Your task to perform on an android device: turn off translation in the chrome app Image 0: 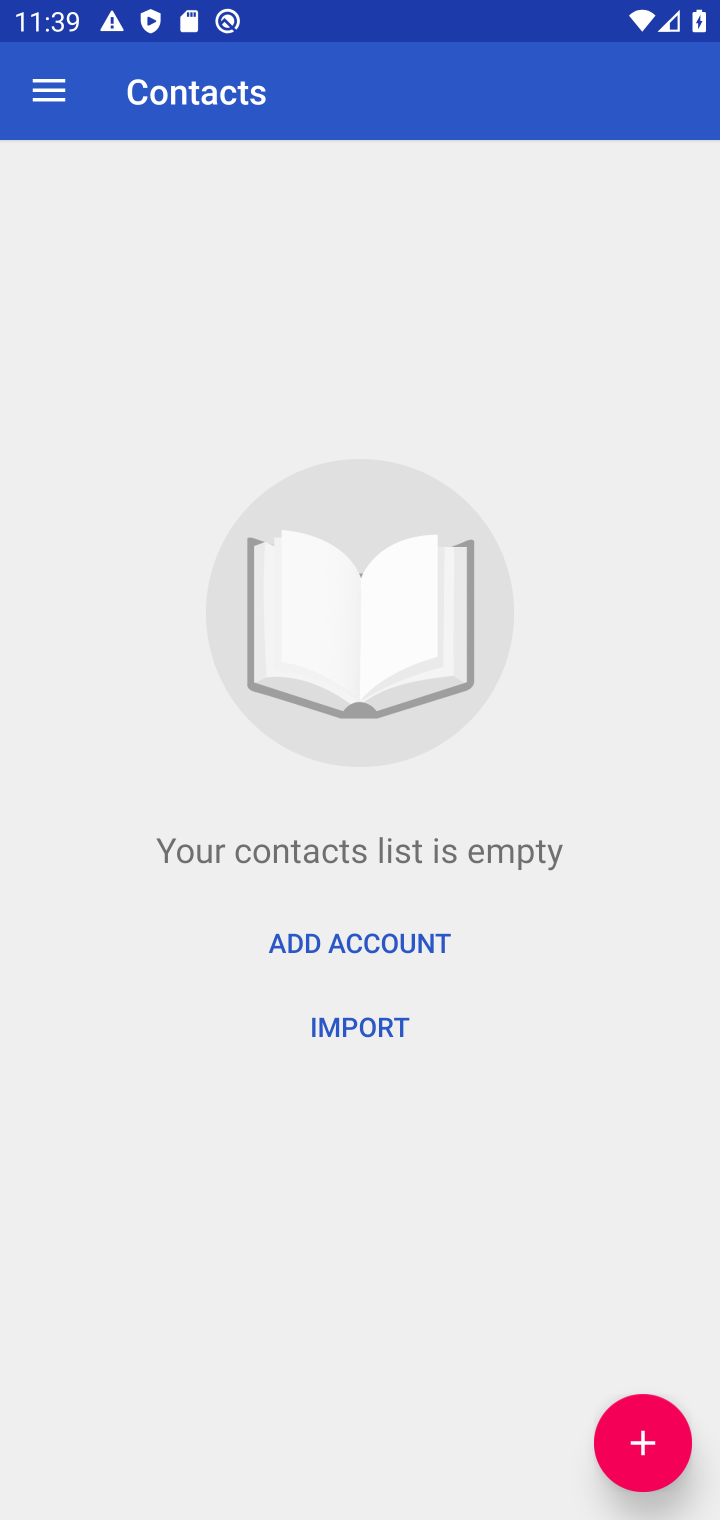
Step 0: drag from (468, 836) to (533, 345)
Your task to perform on an android device: turn off translation in the chrome app Image 1: 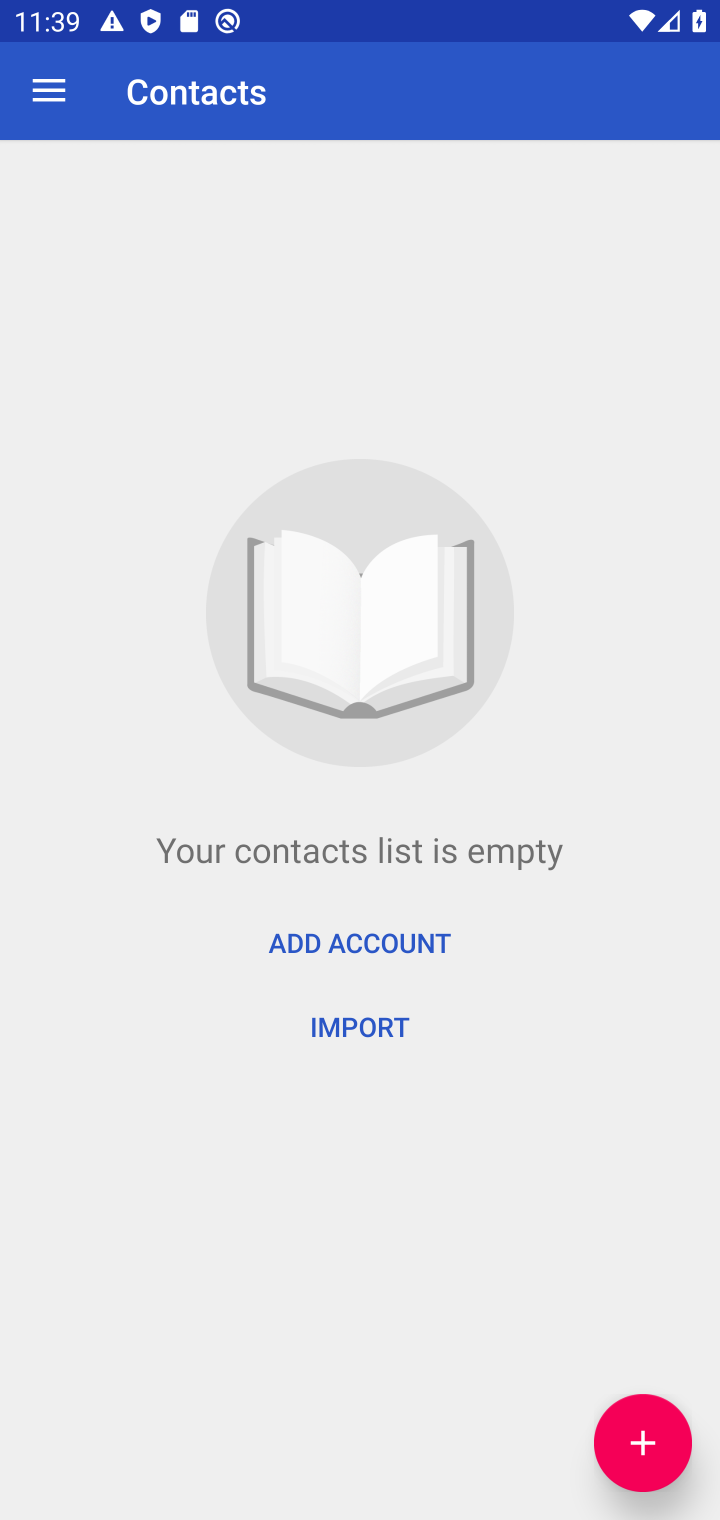
Step 1: drag from (500, 1320) to (520, 782)
Your task to perform on an android device: turn off translation in the chrome app Image 2: 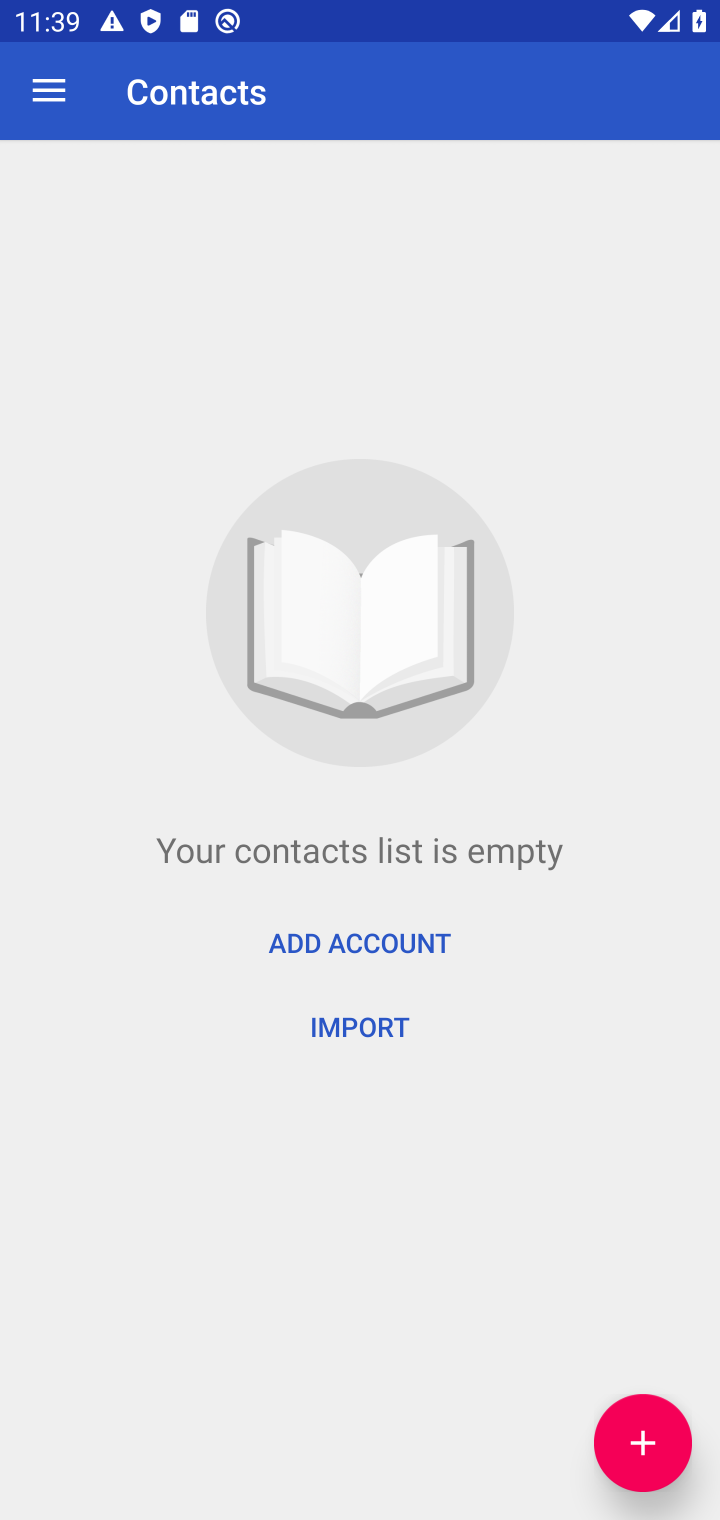
Step 2: drag from (429, 1206) to (426, 1012)
Your task to perform on an android device: turn off translation in the chrome app Image 3: 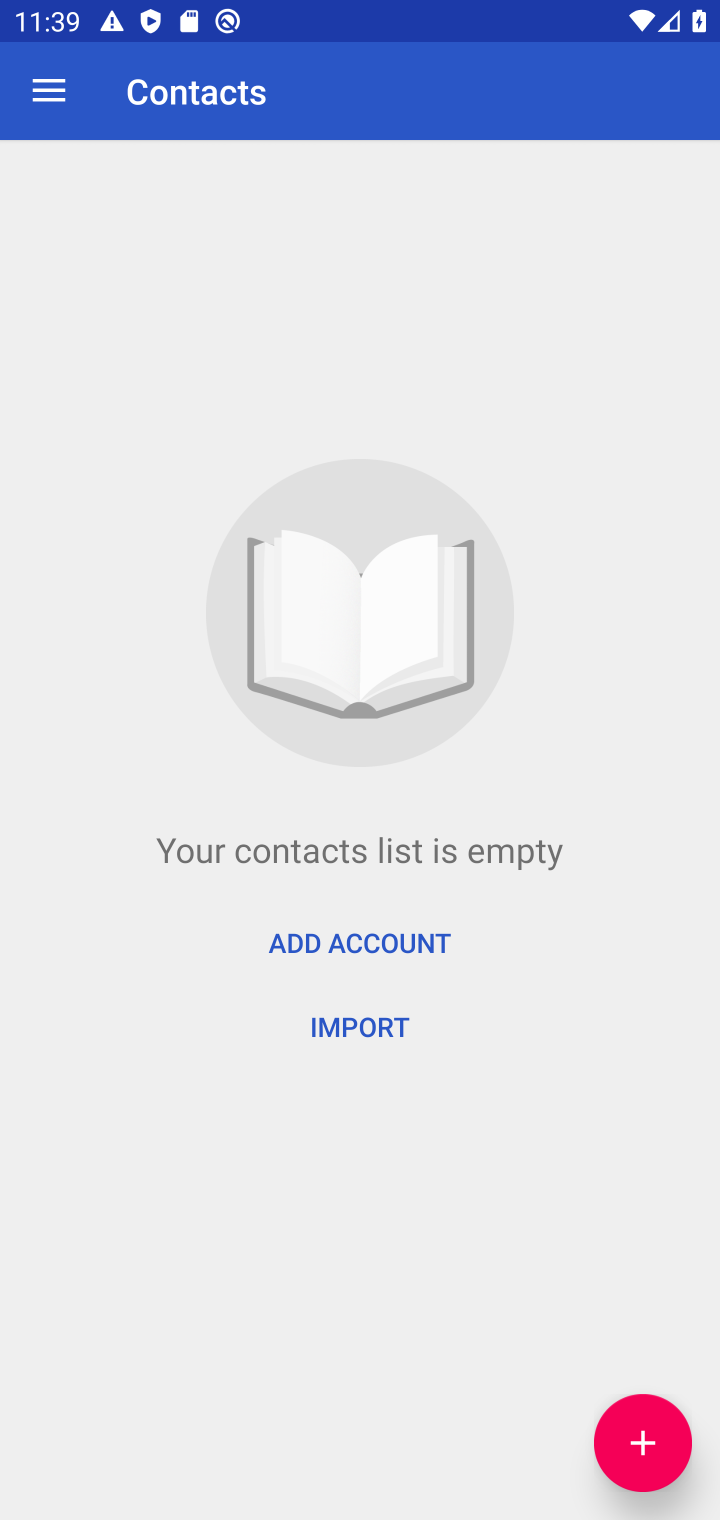
Step 3: drag from (512, 1074) to (529, 221)
Your task to perform on an android device: turn off translation in the chrome app Image 4: 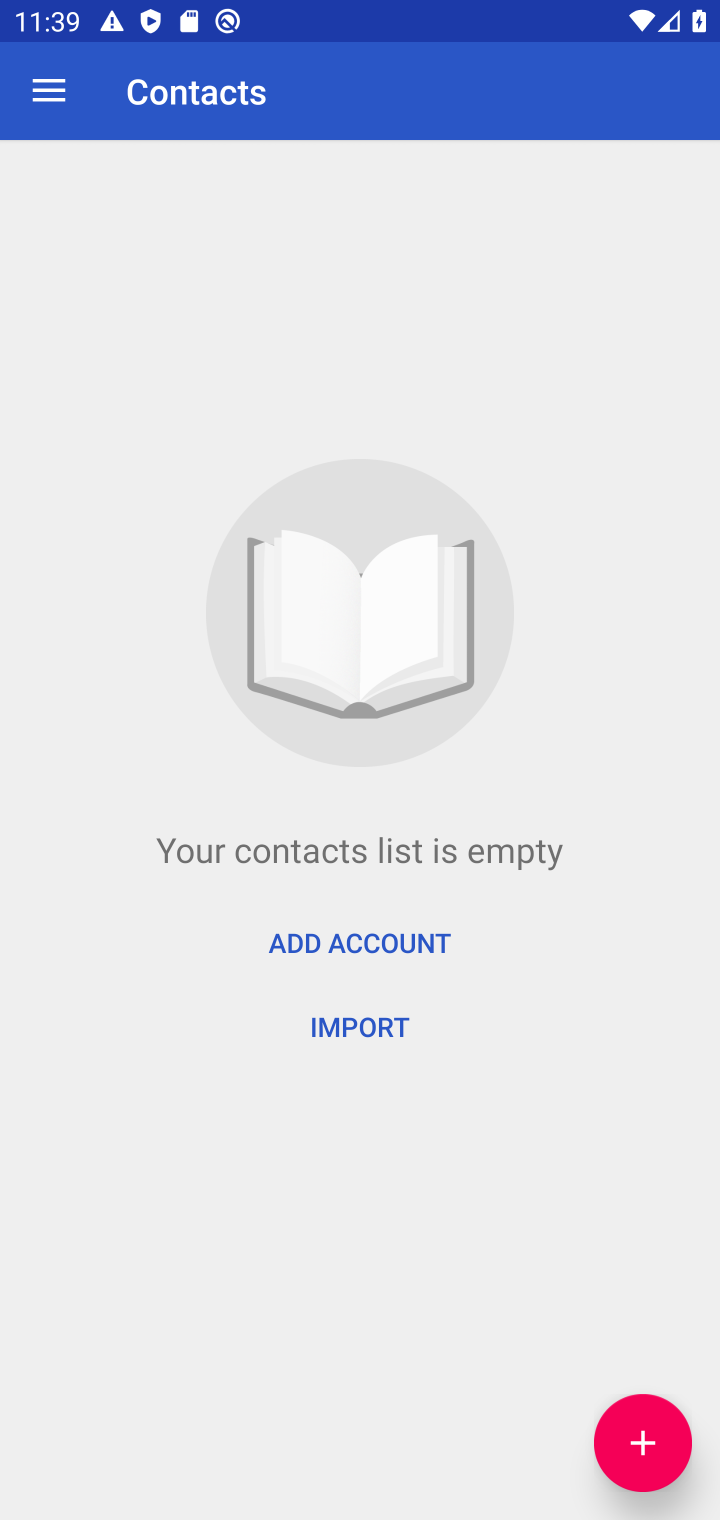
Step 4: drag from (455, 989) to (442, 270)
Your task to perform on an android device: turn off translation in the chrome app Image 5: 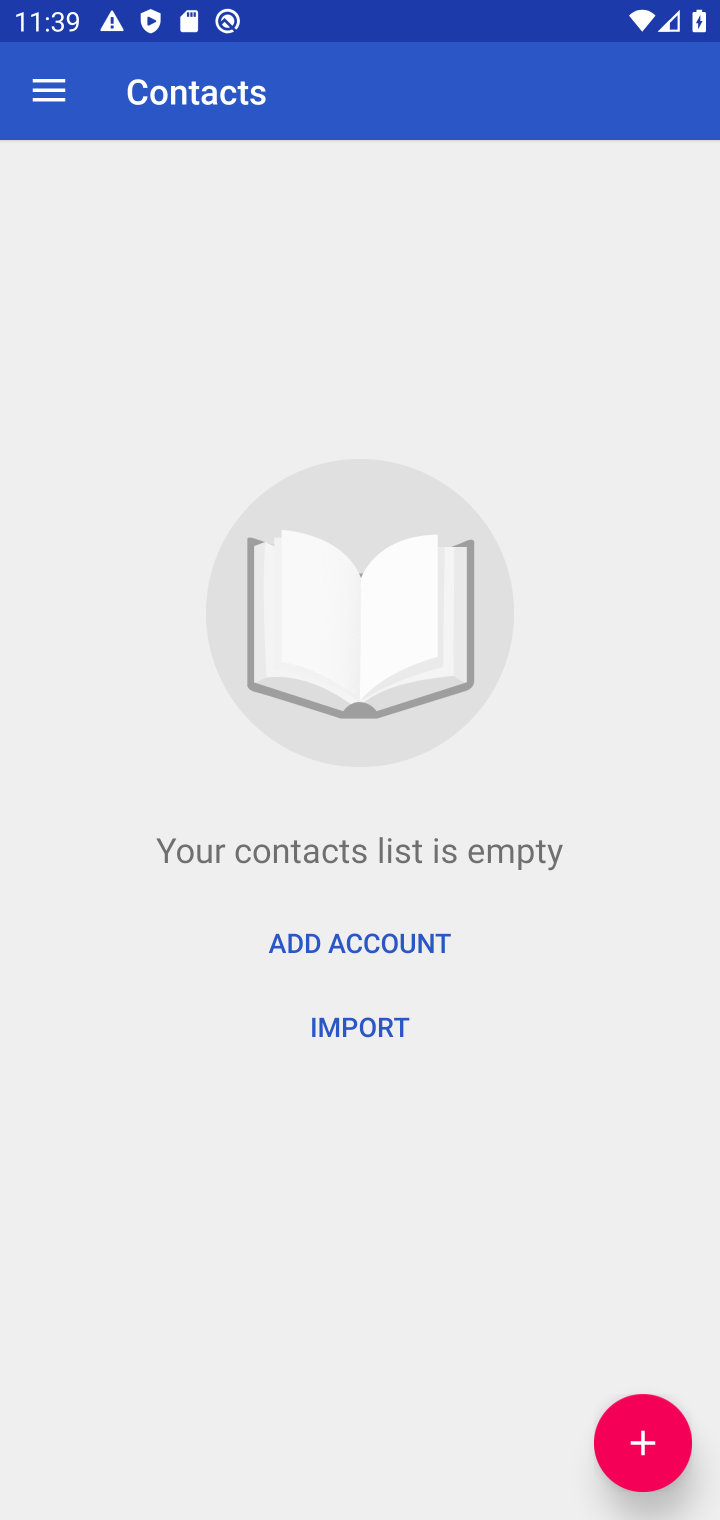
Step 5: press home button
Your task to perform on an android device: turn off translation in the chrome app Image 6: 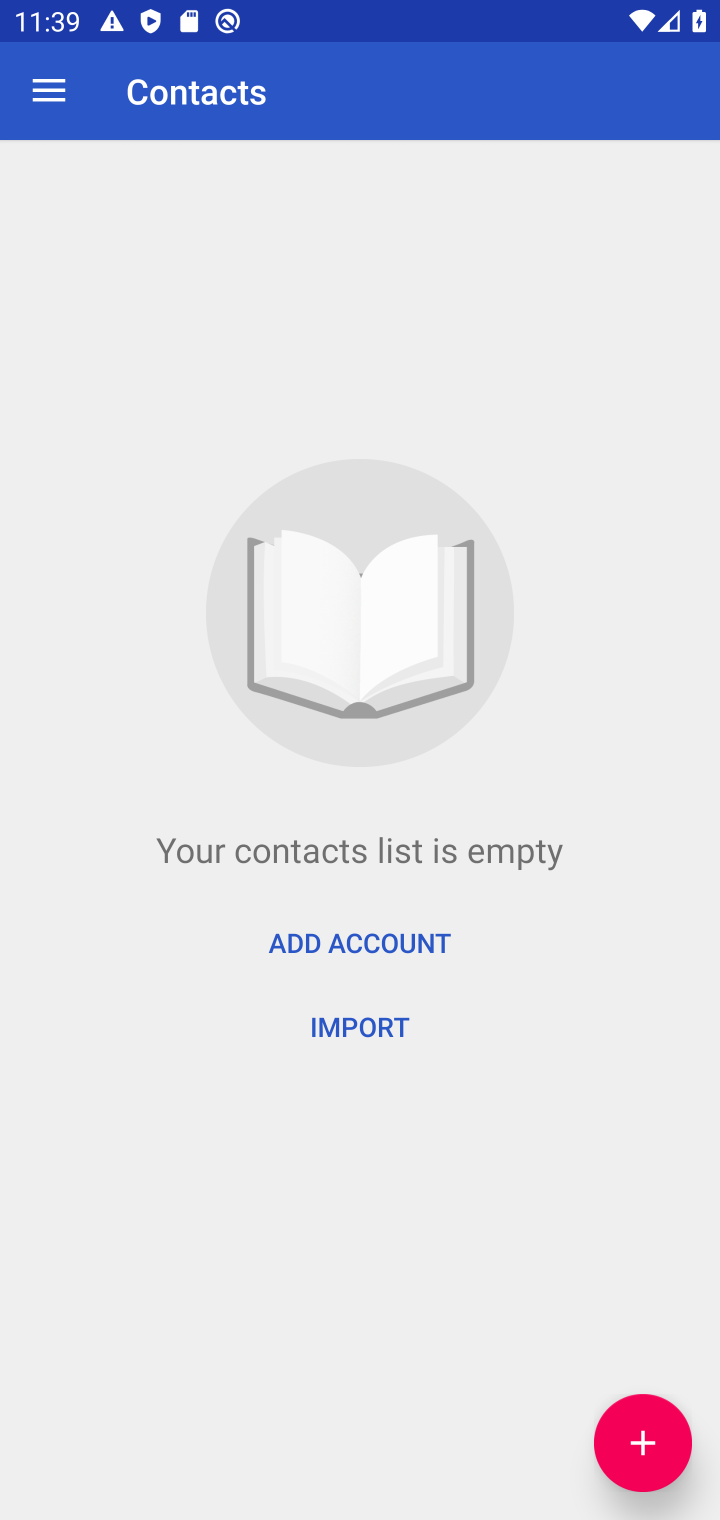
Step 6: press home button
Your task to perform on an android device: turn off translation in the chrome app Image 7: 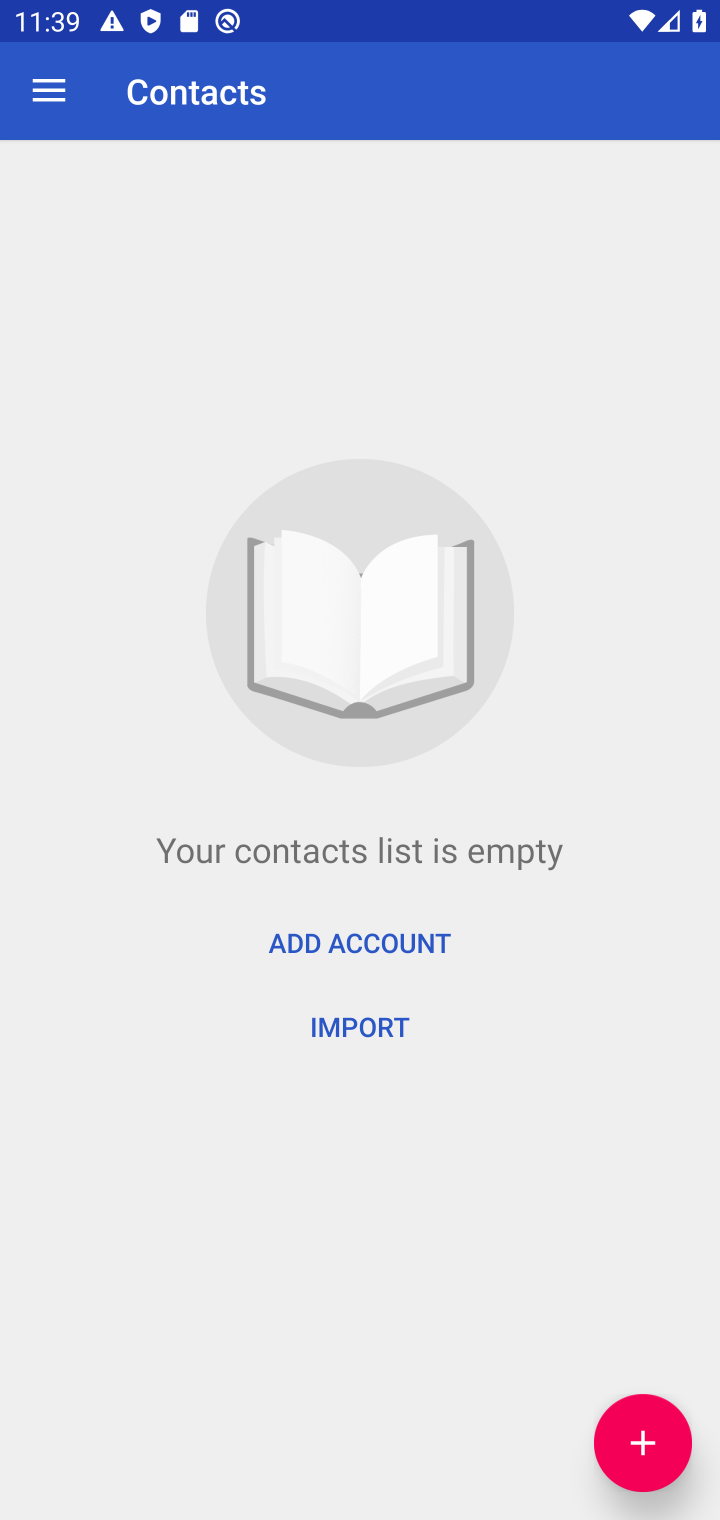
Step 7: click (485, 342)
Your task to perform on an android device: turn off translation in the chrome app Image 8: 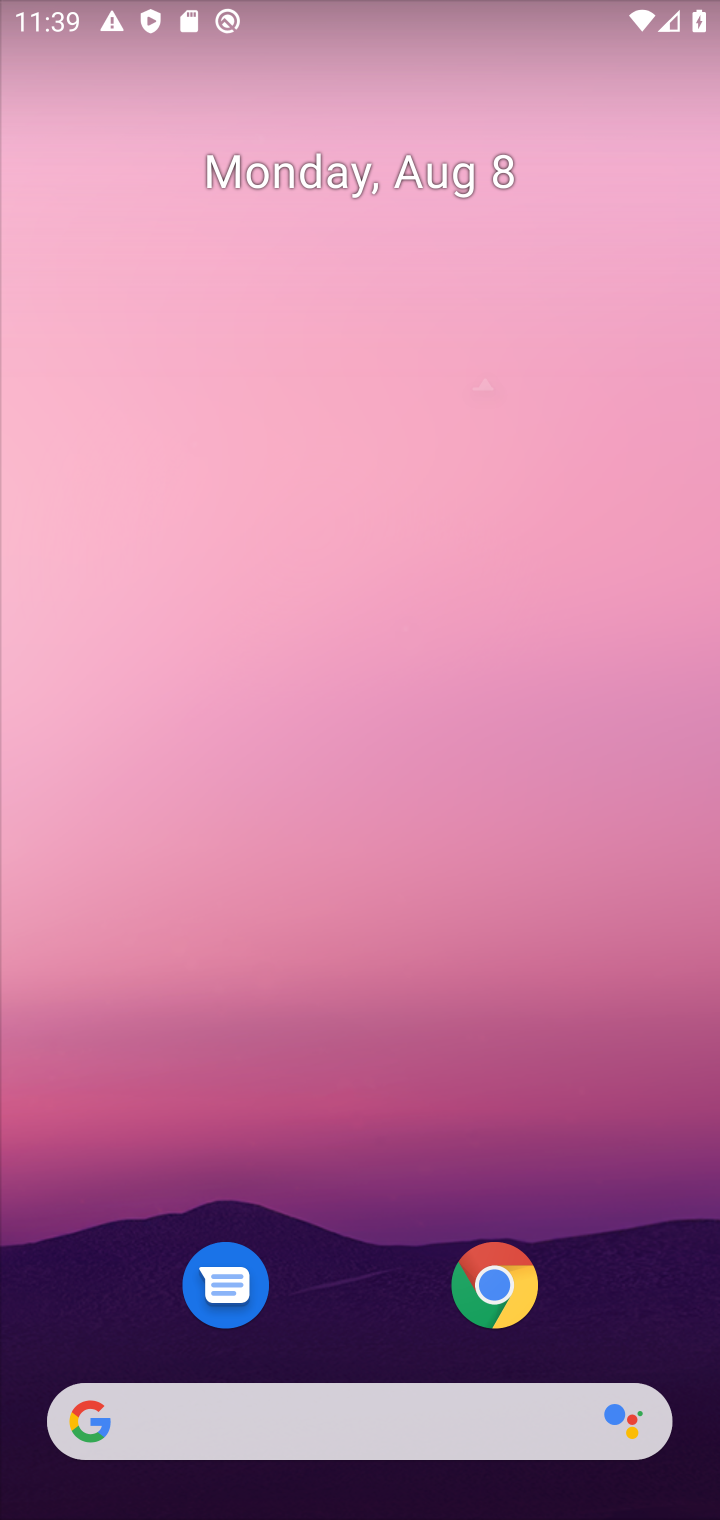
Step 8: drag from (380, 879) to (380, 555)
Your task to perform on an android device: turn off translation in the chrome app Image 9: 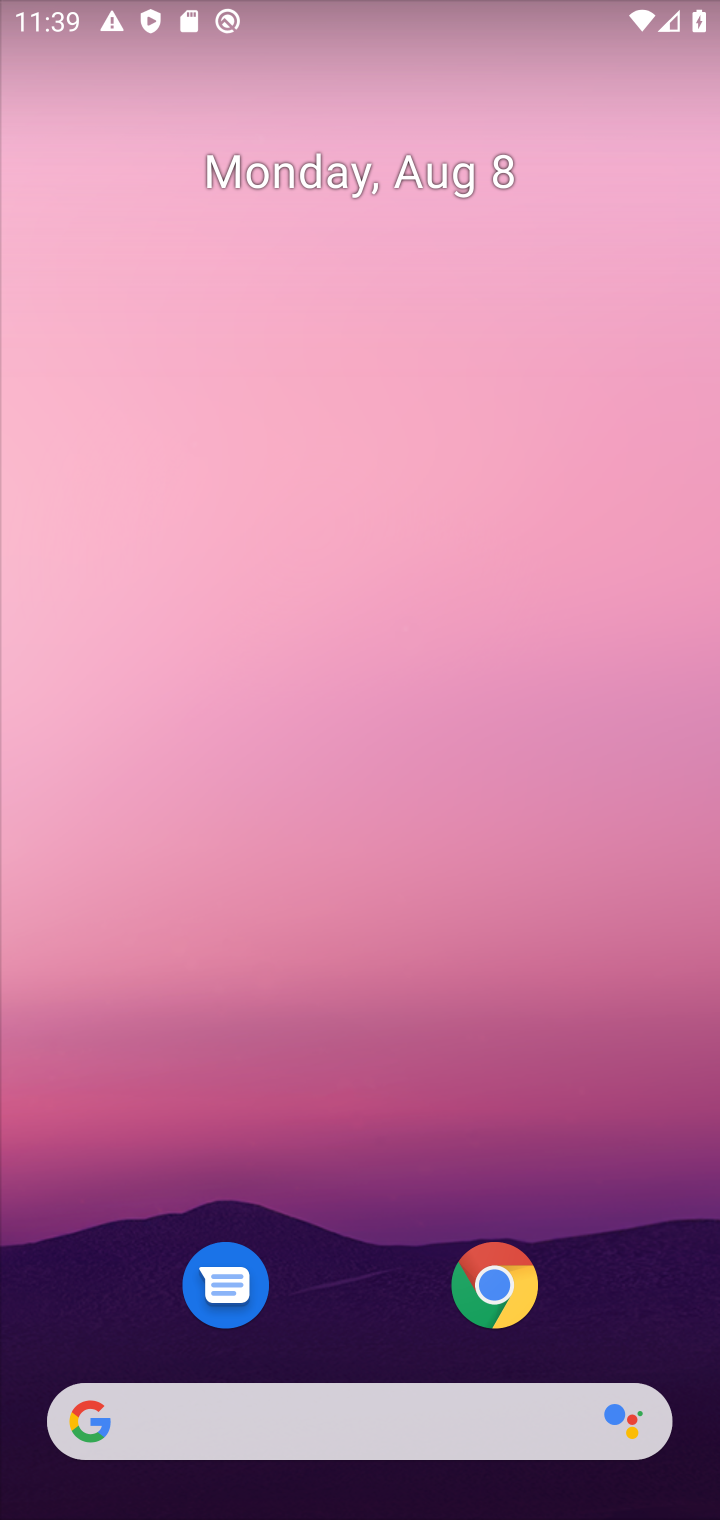
Step 9: drag from (386, 1244) to (487, 172)
Your task to perform on an android device: turn off translation in the chrome app Image 10: 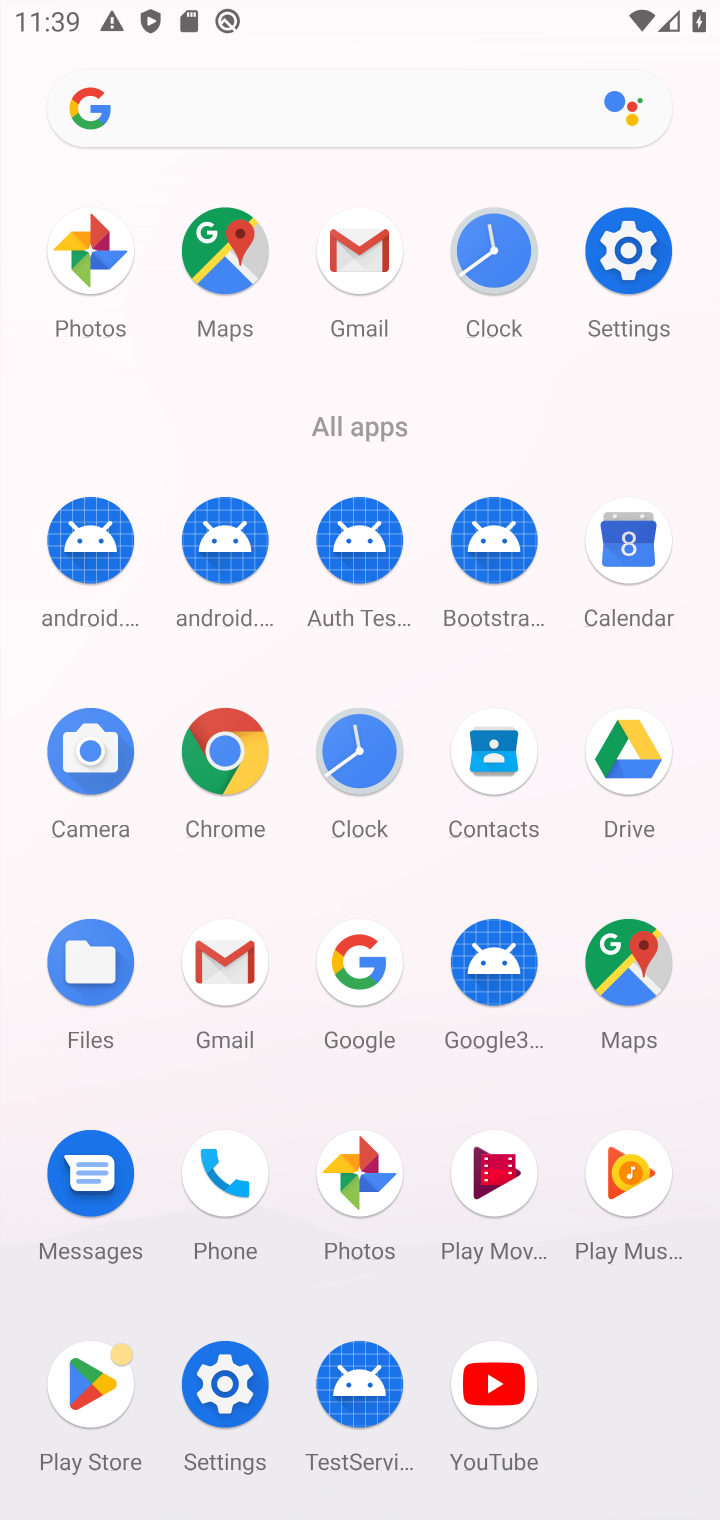
Step 10: click (226, 734)
Your task to perform on an android device: turn off translation in the chrome app Image 11: 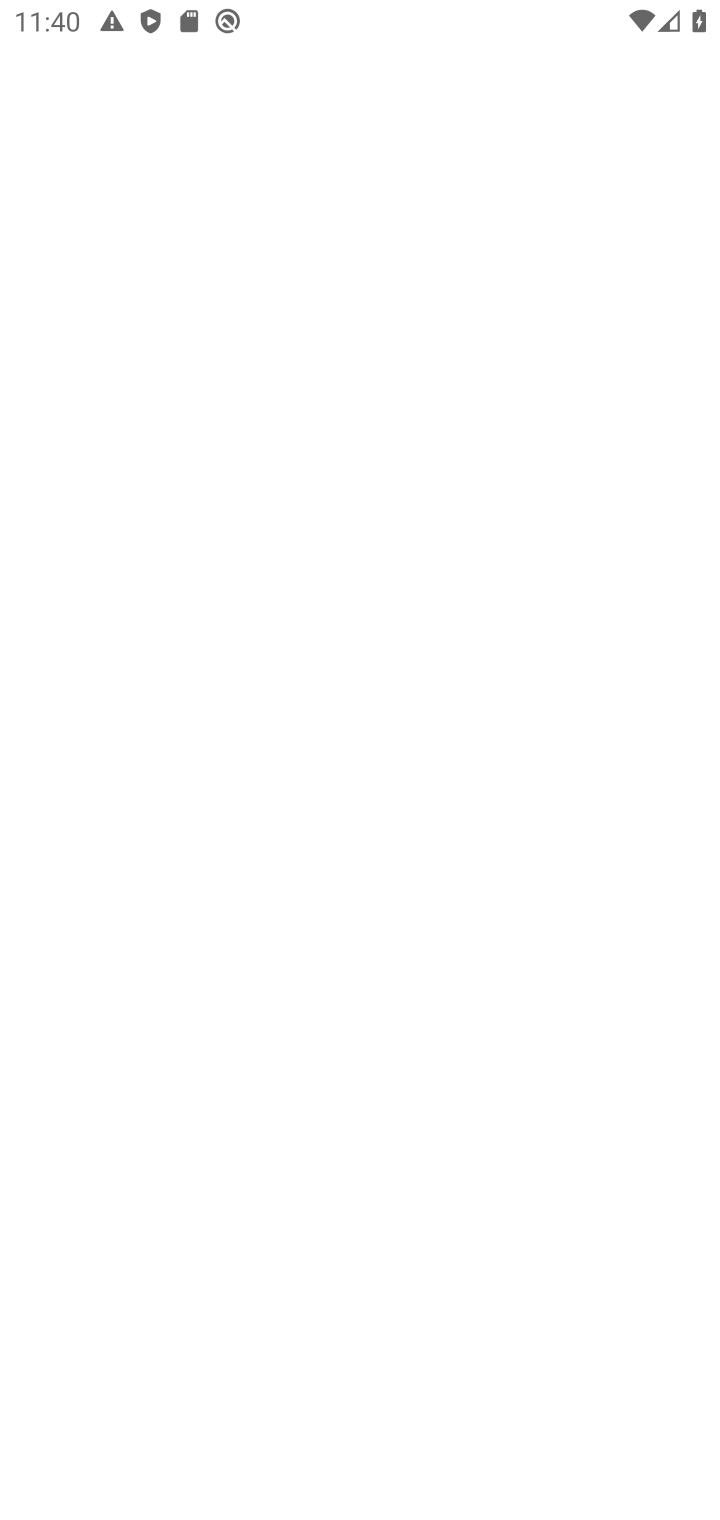
Step 11: click (232, 763)
Your task to perform on an android device: turn off translation in the chrome app Image 12: 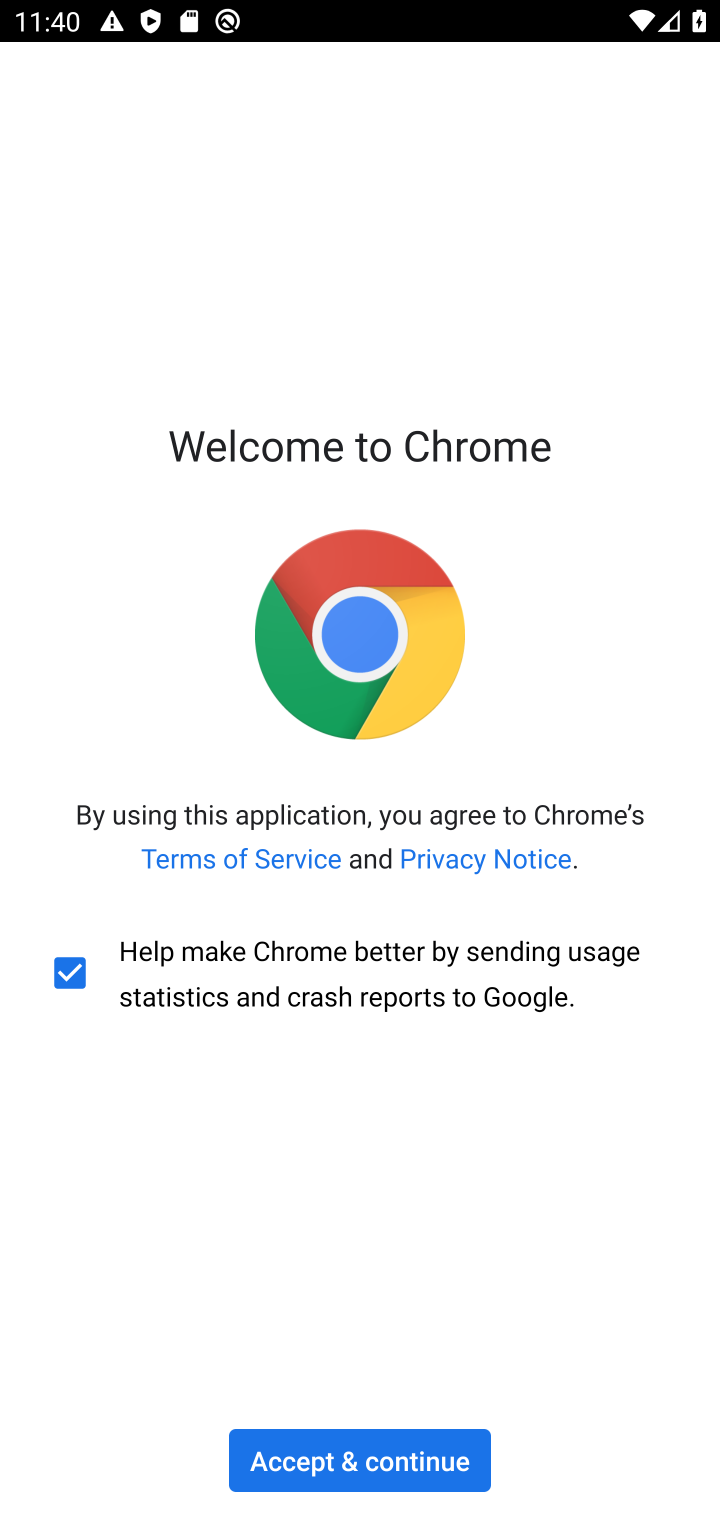
Step 12: click (340, 1447)
Your task to perform on an android device: turn off translation in the chrome app Image 13: 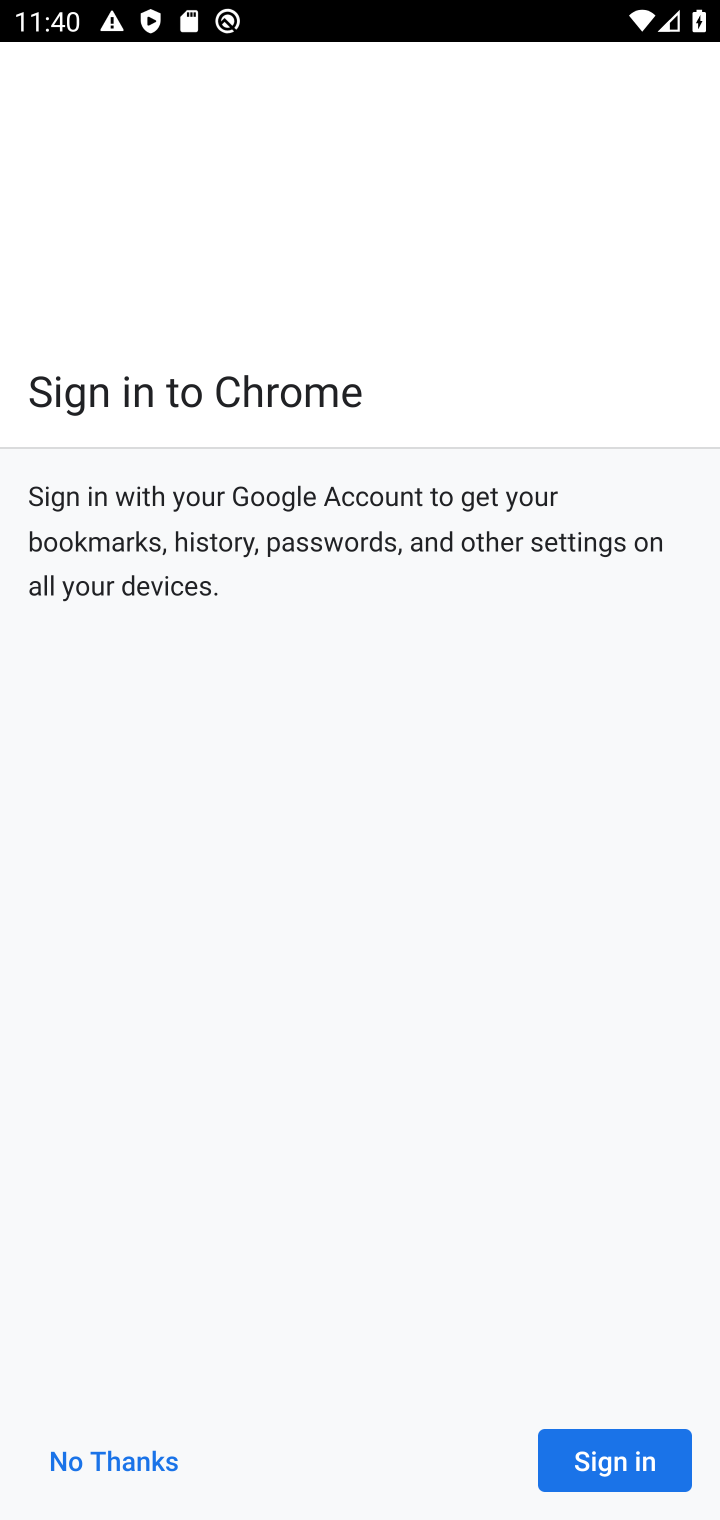
Step 13: click (335, 1449)
Your task to perform on an android device: turn off translation in the chrome app Image 14: 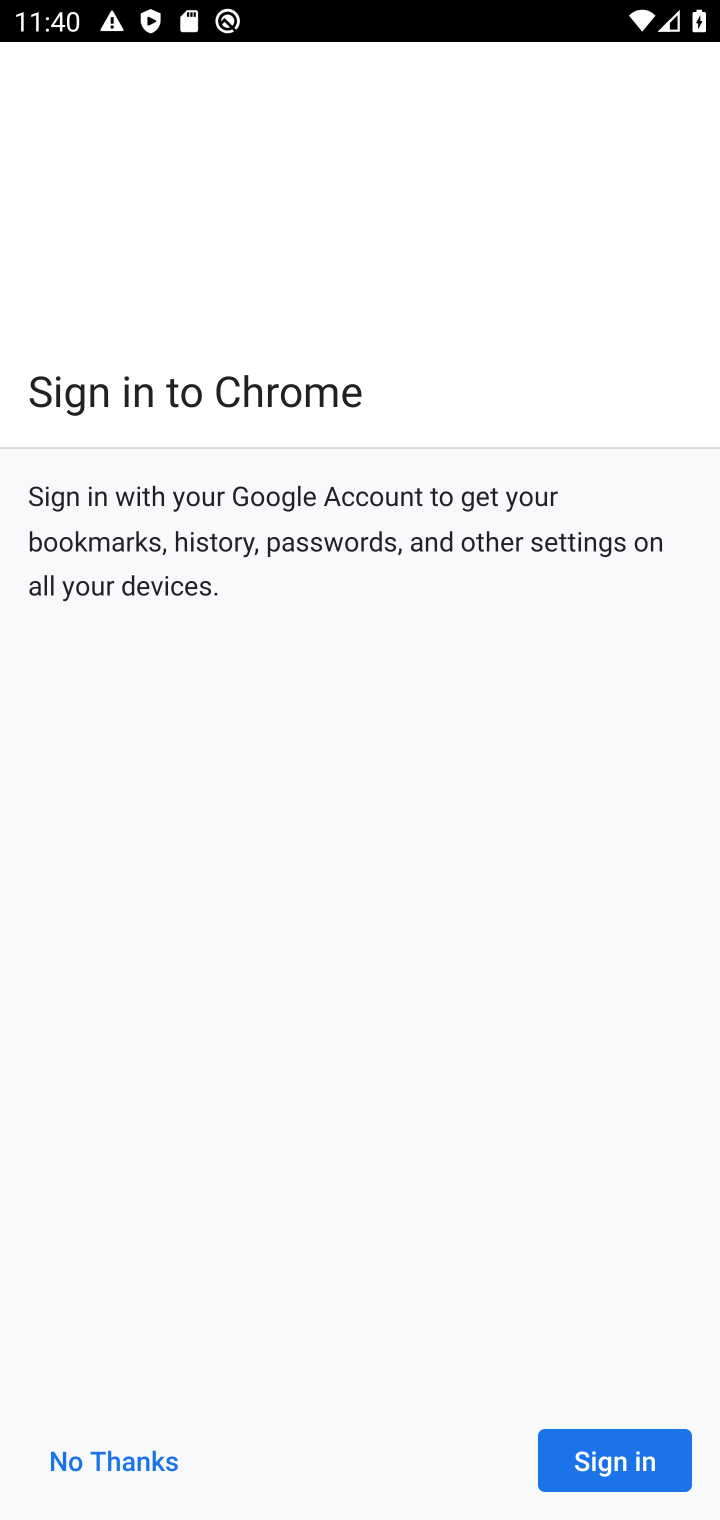
Step 14: drag from (322, 805) to (297, 92)
Your task to perform on an android device: turn off translation in the chrome app Image 15: 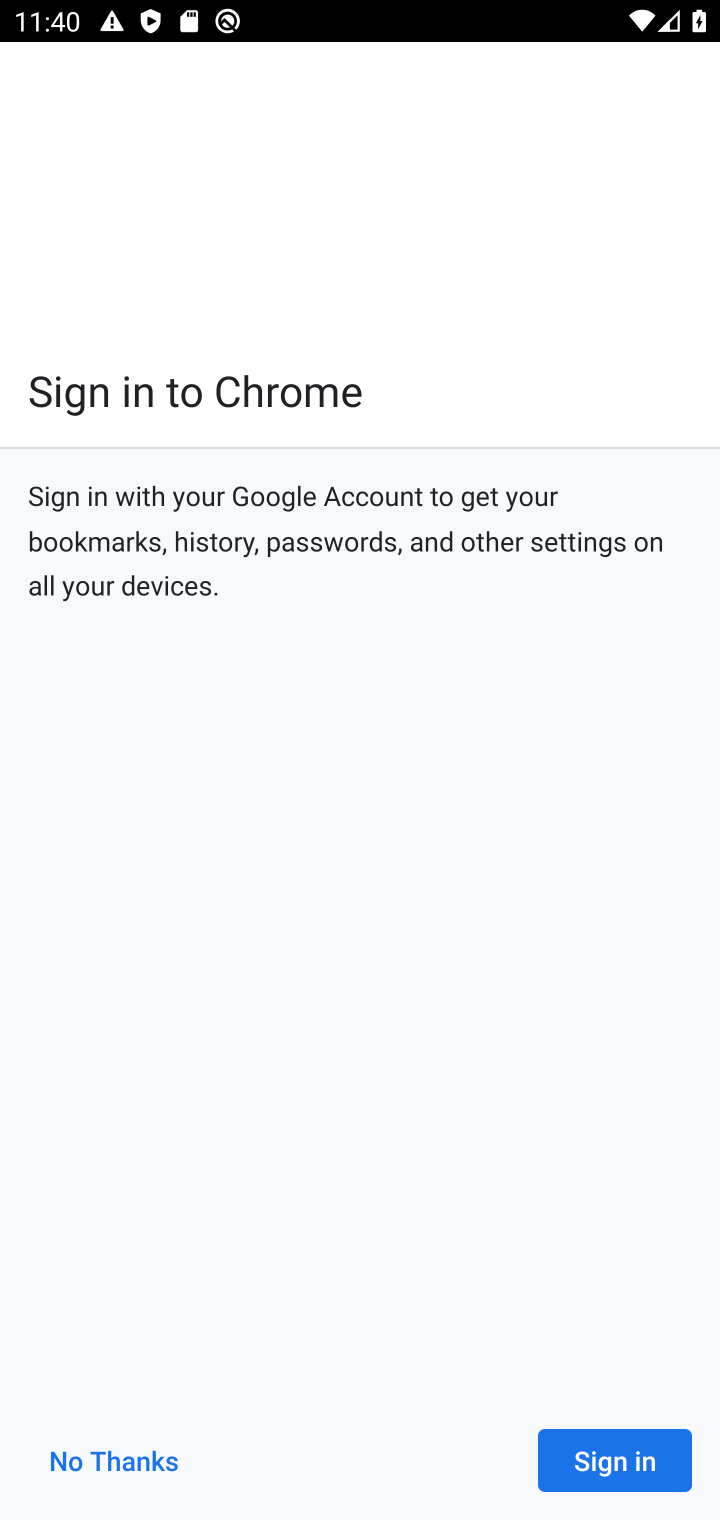
Step 15: click (99, 1466)
Your task to perform on an android device: turn off translation in the chrome app Image 16: 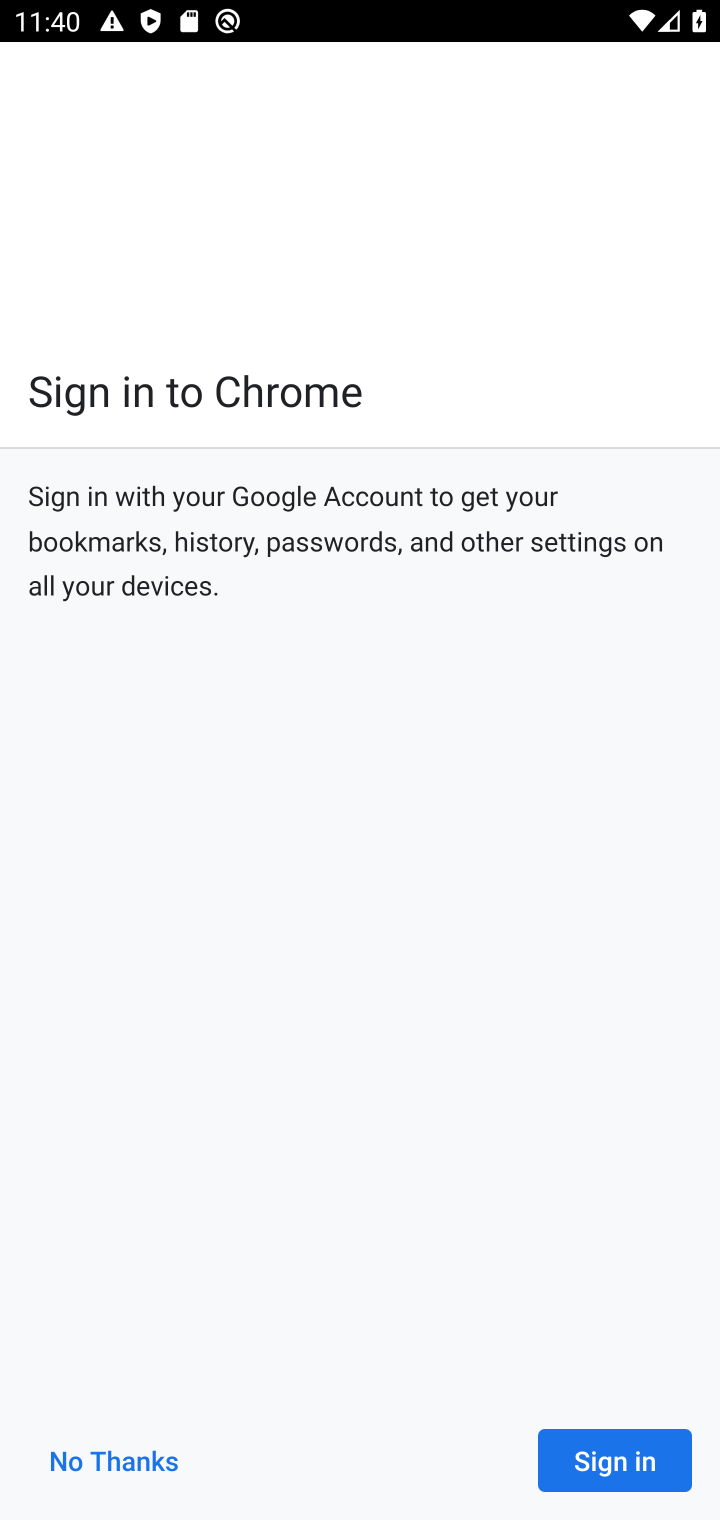
Step 16: click (419, 127)
Your task to perform on an android device: turn off translation in the chrome app Image 17: 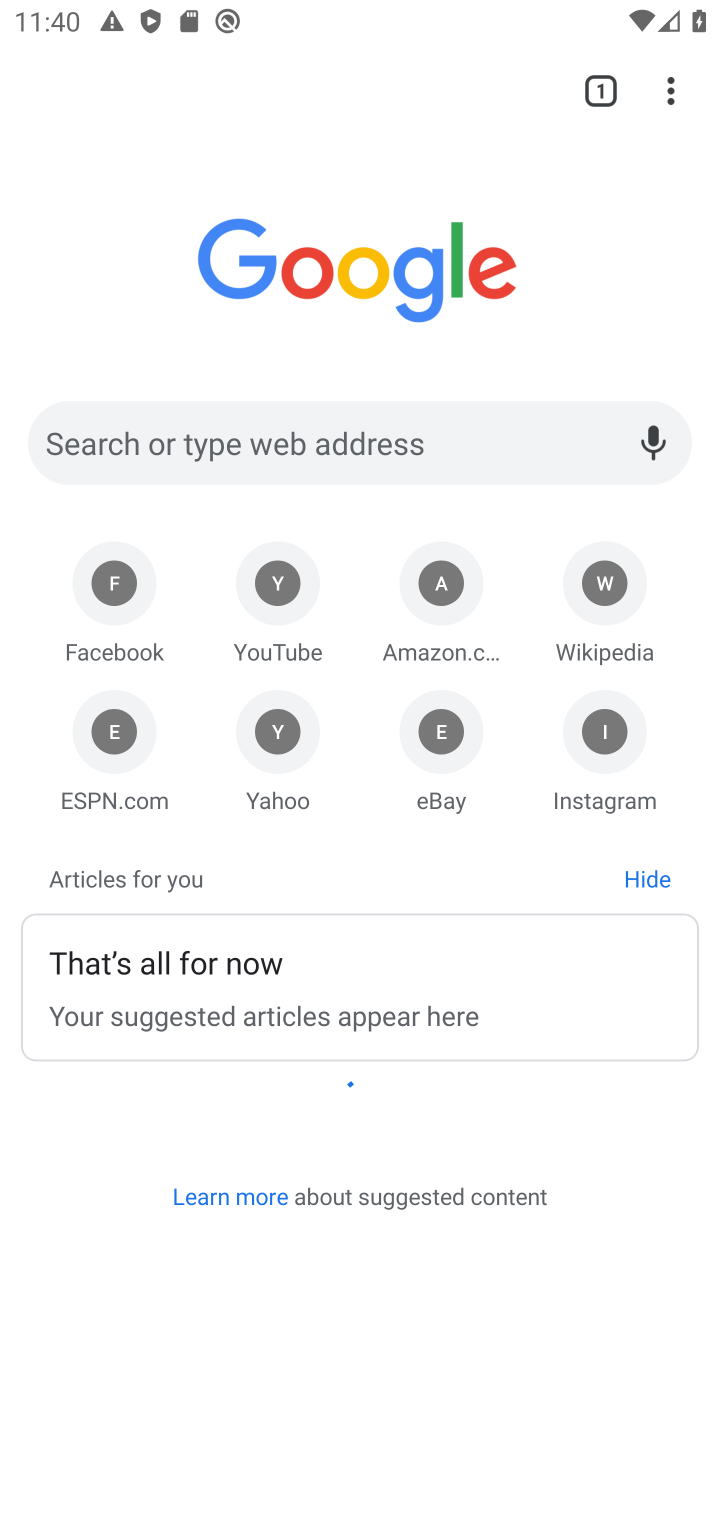
Step 17: drag from (655, 146) to (357, 907)
Your task to perform on an android device: turn off translation in the chrome app Image 18: 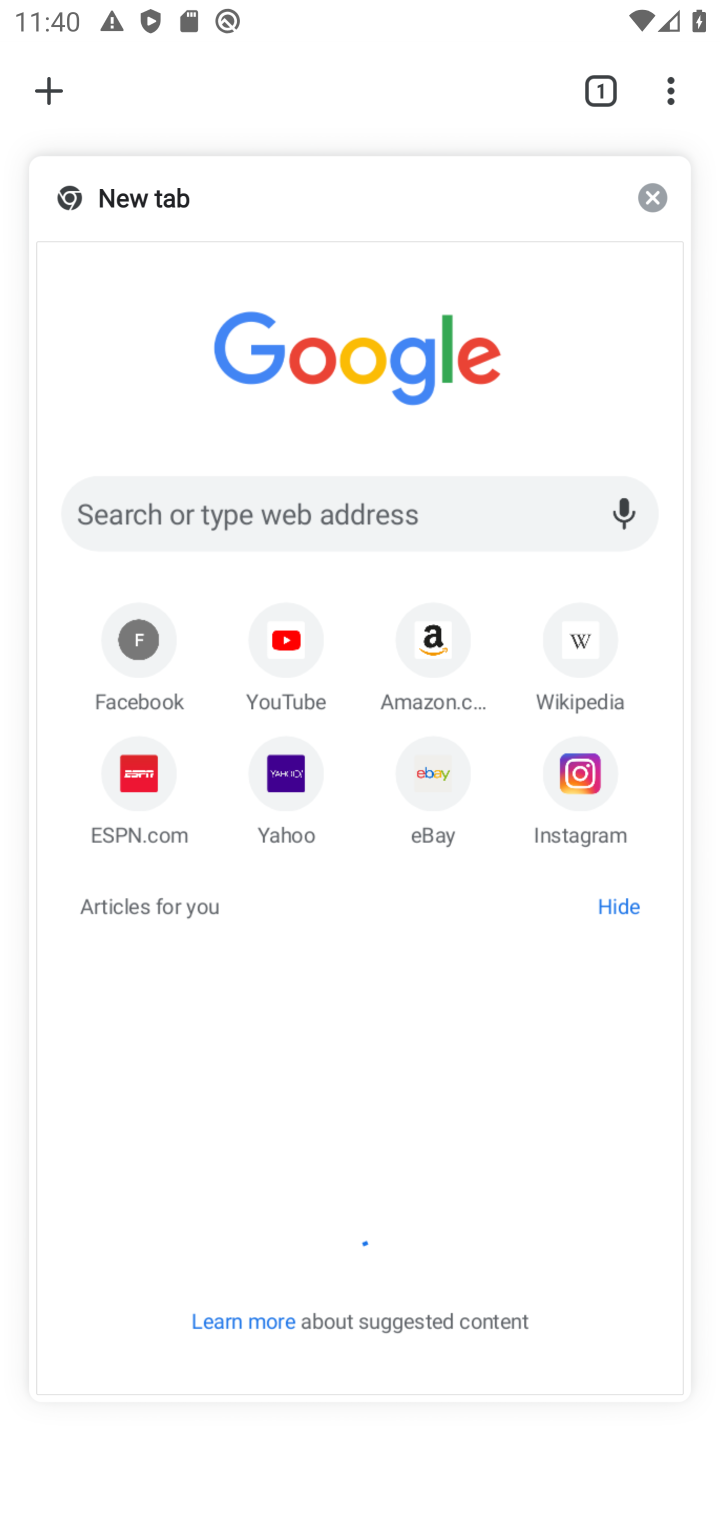
Step 18: click (334, 263)
Your task to perform on an android device: turn off translation in the chrome app Image 19: 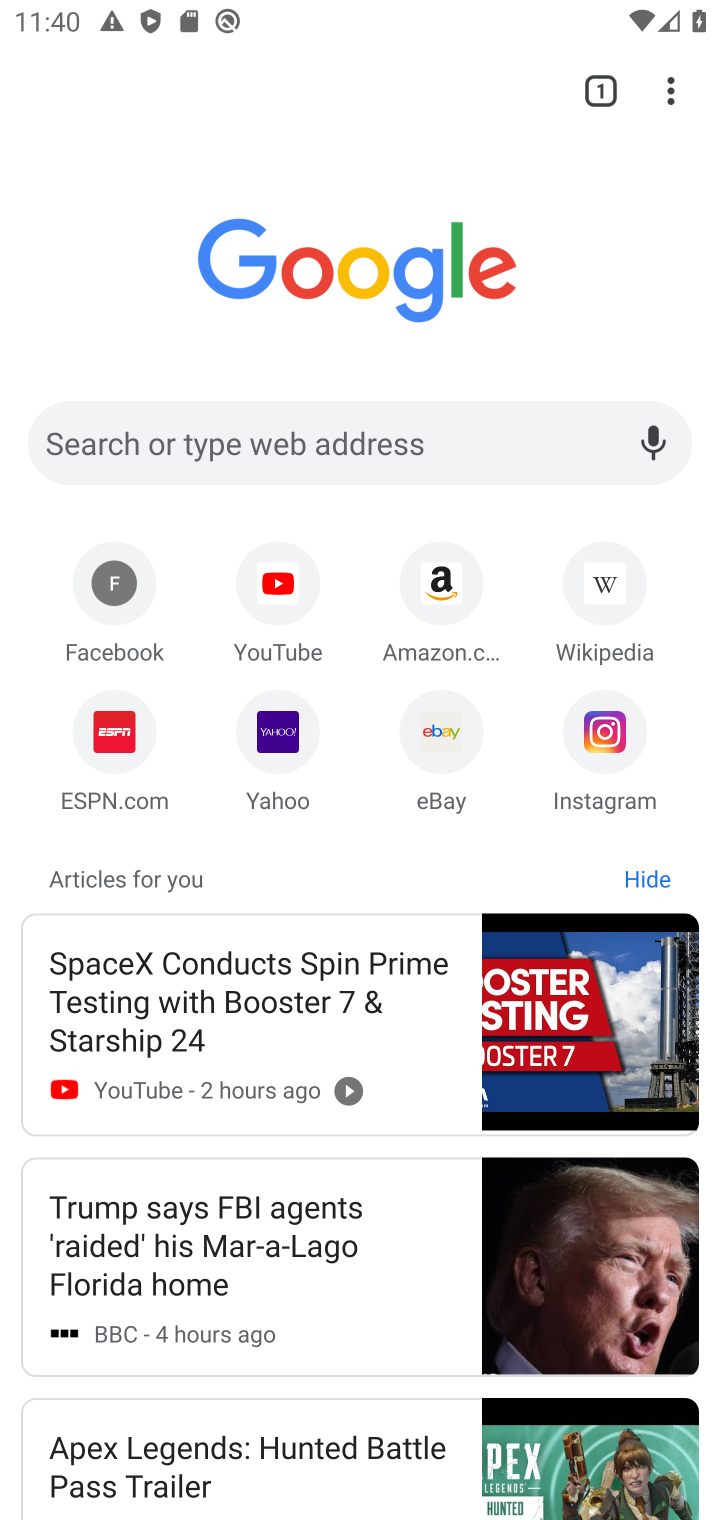
Step 19: drag from (672, 78) to (391, 761)
Your task to perform on an android device: turn off translation in the chrome app Image 20: 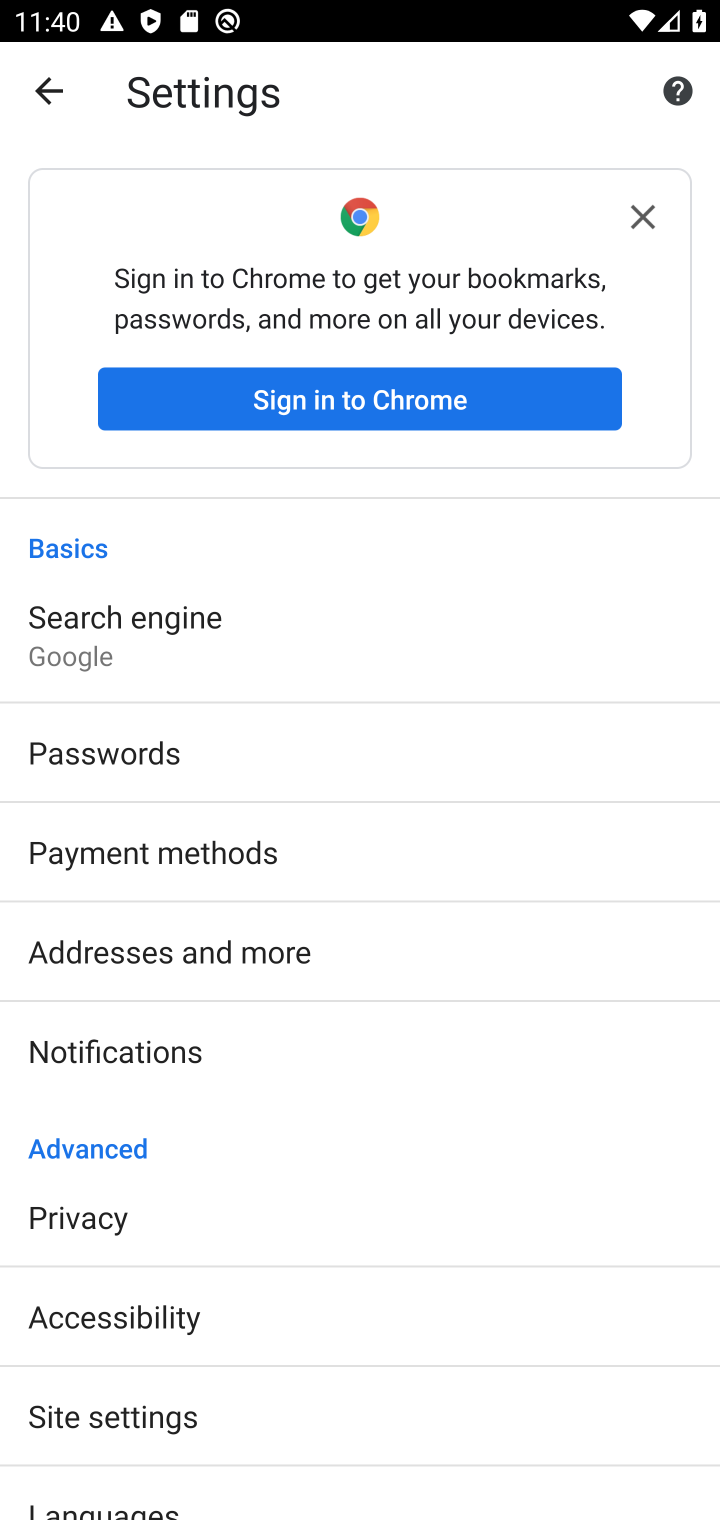
Step 20: drag from (344, 1300) to (393, 421)
Your task to perform on an android device: turn off translation in the chrome app Image 21: 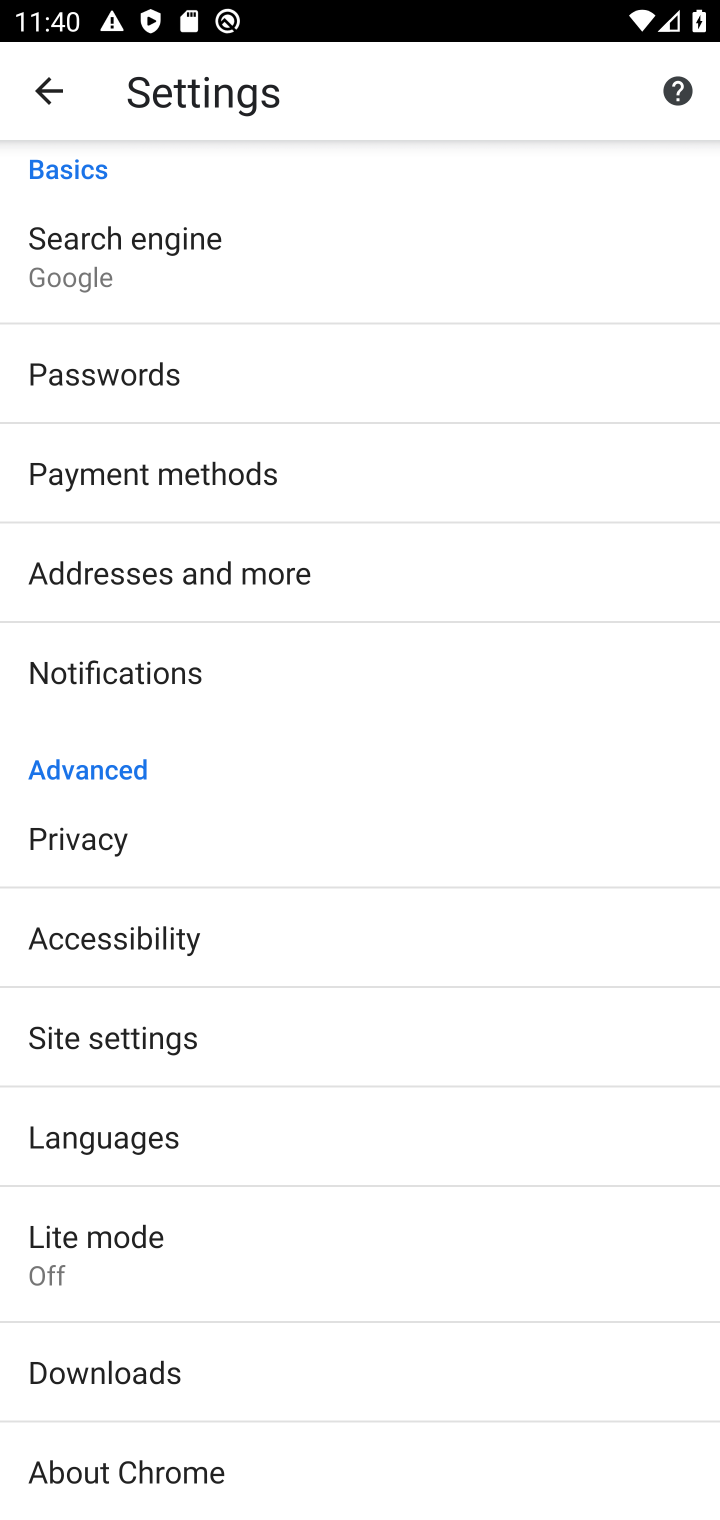
Step 21: click (202, 1129)
Your task to perform on an android device: turn off translation in the chrome app Image 22: 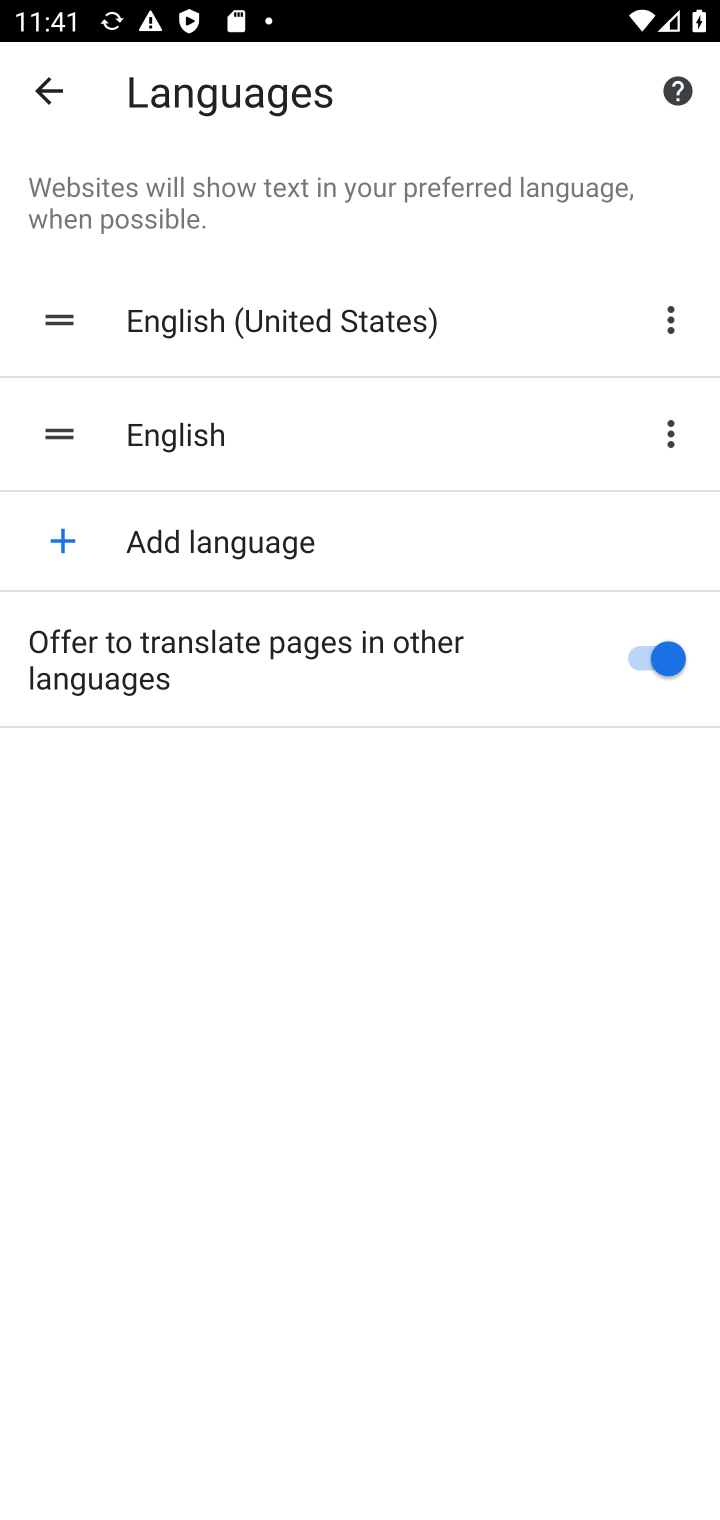
Step 22: click (646, 658)
Your task to perform on an android device: turn off translation in the chrome app Image 23: 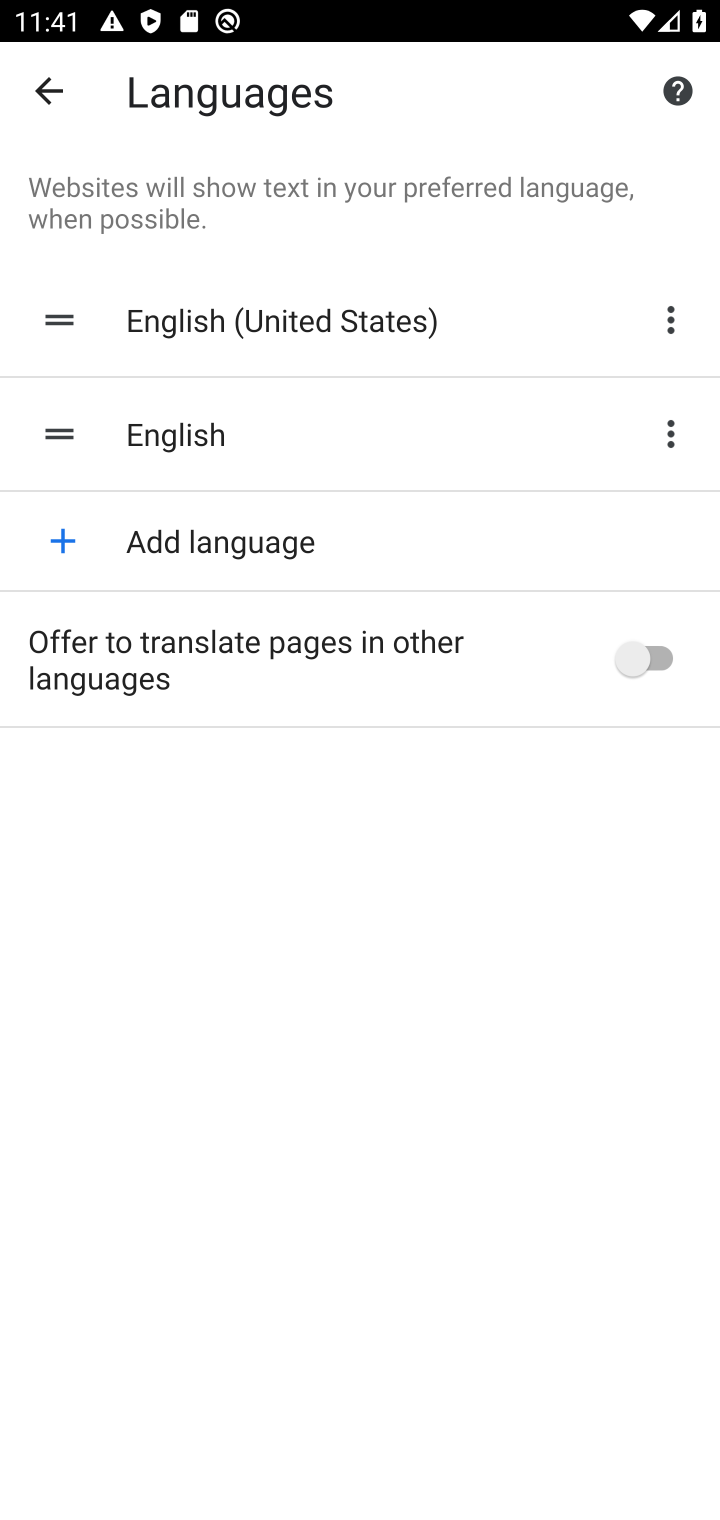
Step 23: task complete